Your task to perform on an android device: star an email in the gmail app Image 0: 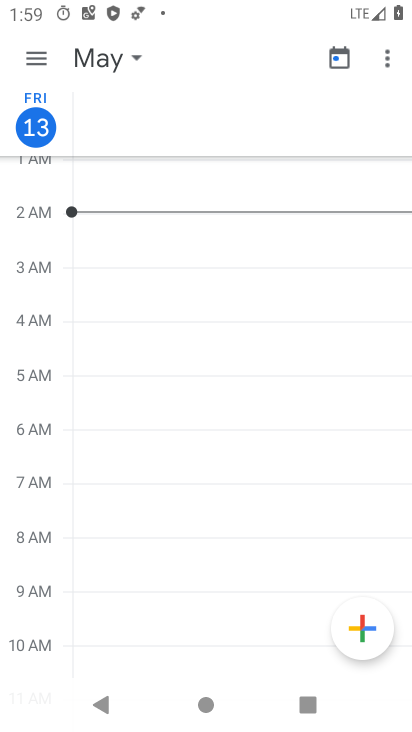
Step 0: press home button
Your task to perform on an android device: star an email in the gmail app Image 1: 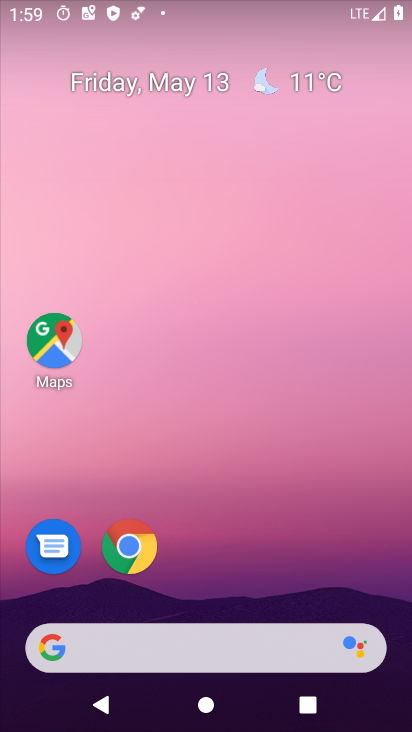
Step 1: drag from (243, 559) to (285, 119)
Your task to perform on an android device: star an email in the gmail app Image 2: 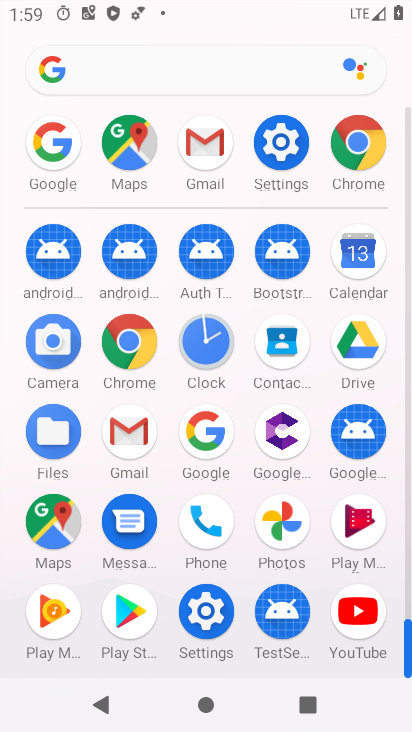
Step 2: click (124, 454)
Your task to perform on an android device: star an email in the gmail app Image 3: 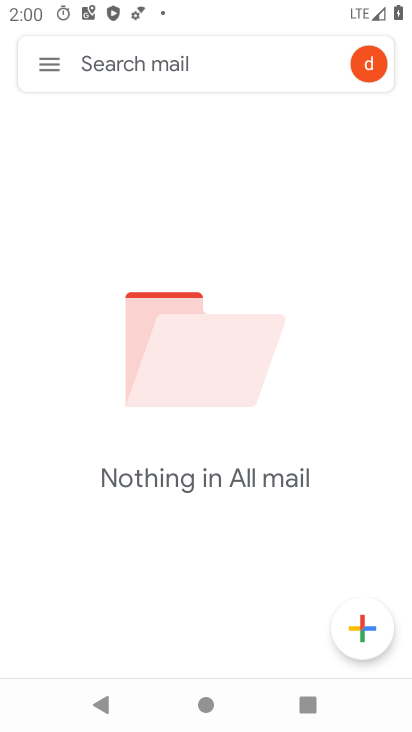
Step 3: task complete